Your task to perform on an android device: open chrome privacy settings Image 0: 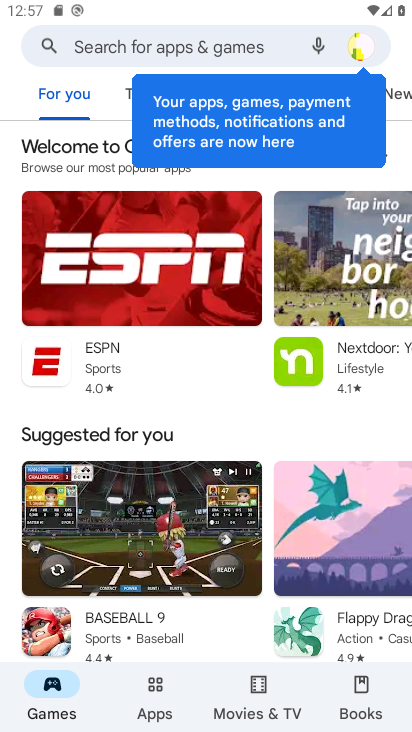
Step 0: press home button
Your task to perform on an android device: open chrome privacy settings Image 1: 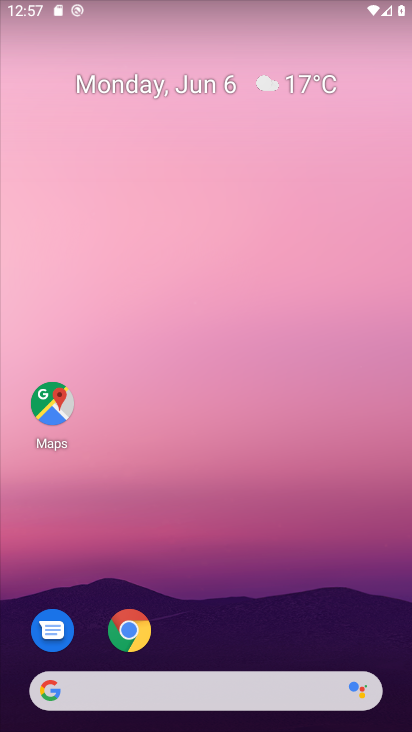
Step 1: drag from (136, 695) to (220, 7)
Your task to perform on an android device: open chrome privacy settings Image 2: 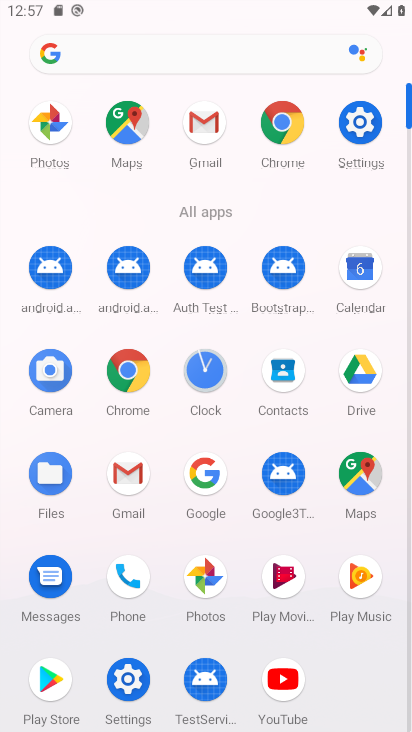
Step 2: click (135, 361)
Your task to perform on an android device: open chrome privacy settings Image 3: 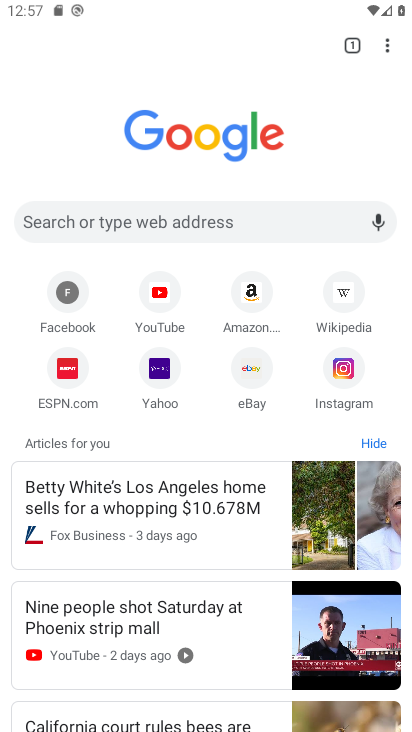
Step 3: click (392, 52)
Your task to perform on an android device: open chrome privacy settings Image 4: 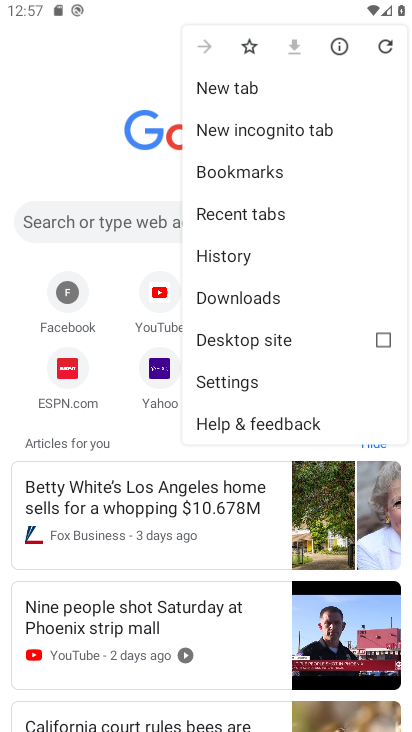
Step 4: click (239, 387)
Your task to perform on an android device: open chrome privacy settings Image 5: 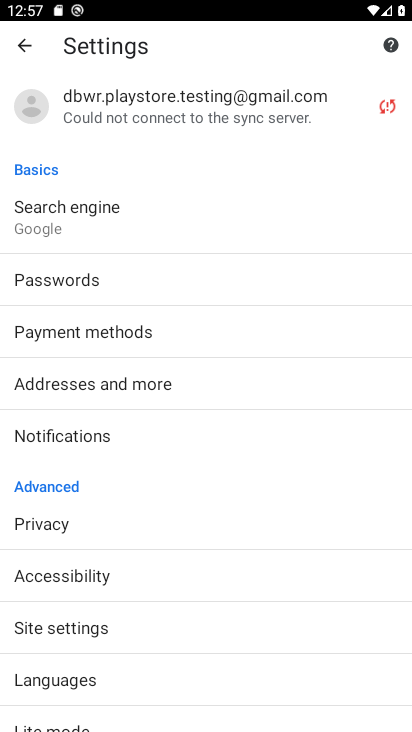
Step 5: click (62, 520)
Your task to perform on an android device: open chrome privacy settings Image 6: 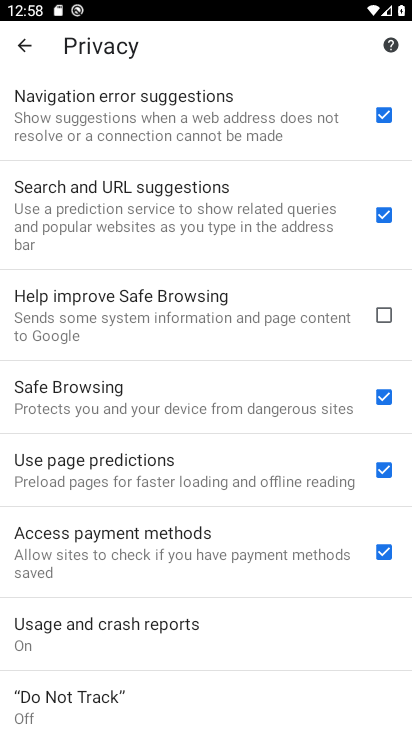
Step 6: task complete